Your task to perform on an android device: Find coffee shops on Maps Image 0: 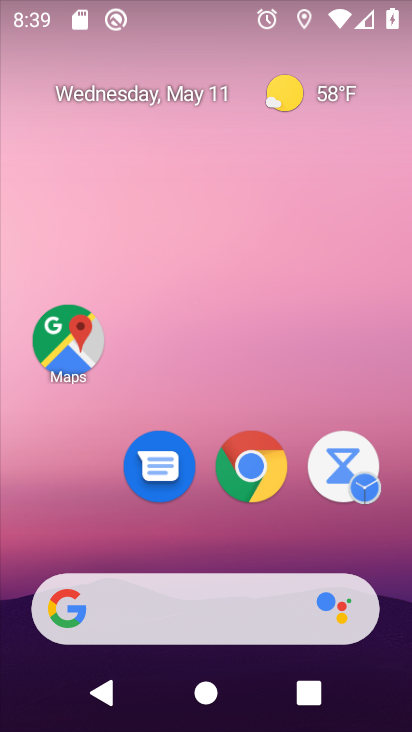
Step 0: drag from (241, 556) to (227, 86)
Your task to perform on an android device: Find coffee shops on Maps Image 1: 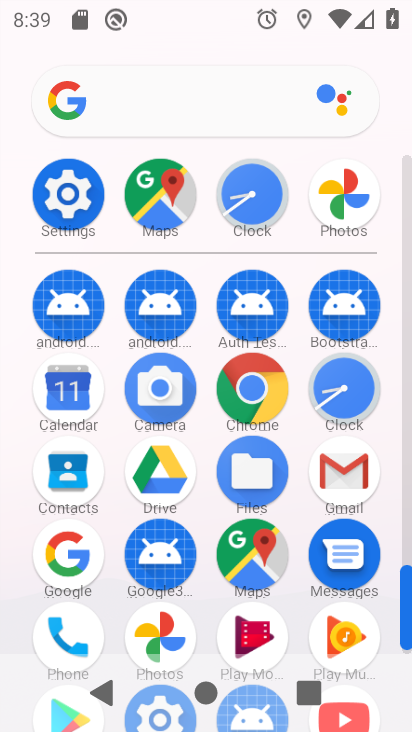
Step 1: click (152, 214)
Your task to perform on an android device: Find coffee shops on Maps Image 2: 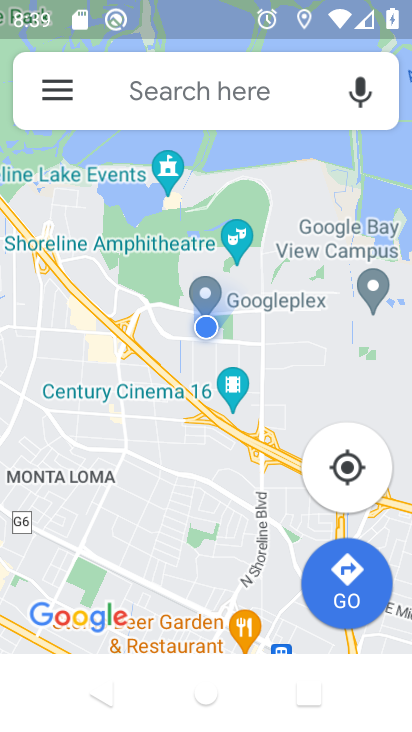
Step 2: click (167, 88)
Your task to perform on an android device: Find coffee shops on Maps Image 3: 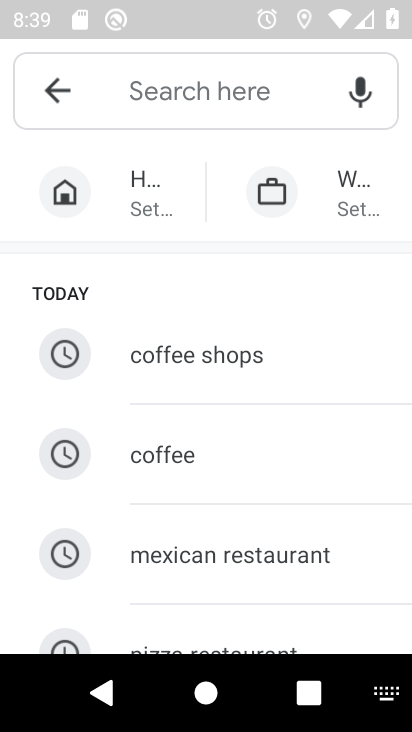
Step 3: type "coffee shops"
Your task to perform on an android device: Find coffee shops on Maps Image 4: 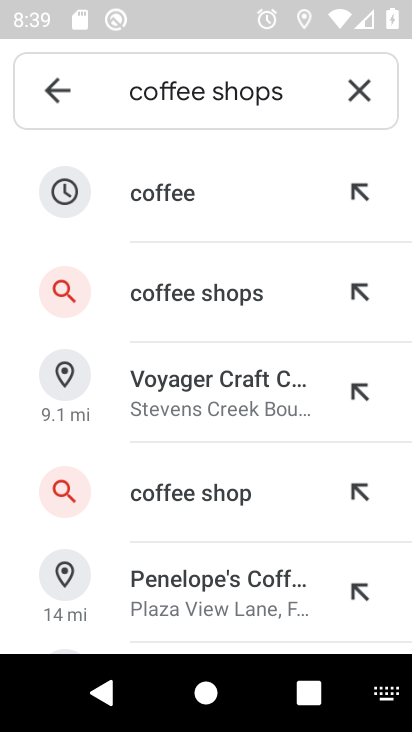
Step 4: click (163, 302)
Your task to perform on an android device: Find coffee shops on Maps Image 5: 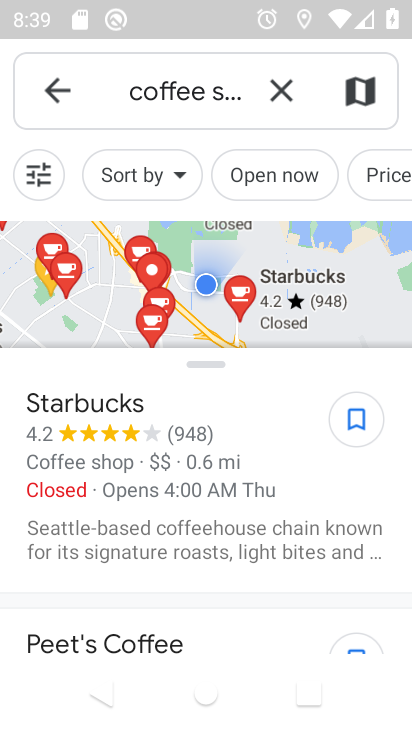
Step 5: task complete